Your task to perform on an android device: Open the web browser Image 0: 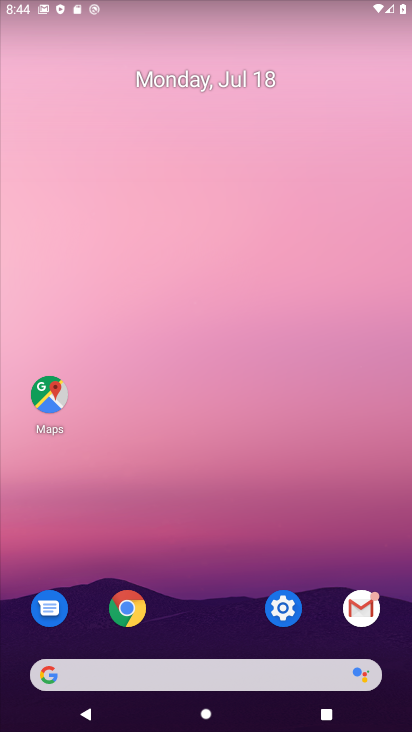
Step 0: click (115, 616)
Your task to perform on an android device: Open the web browser Image 1: 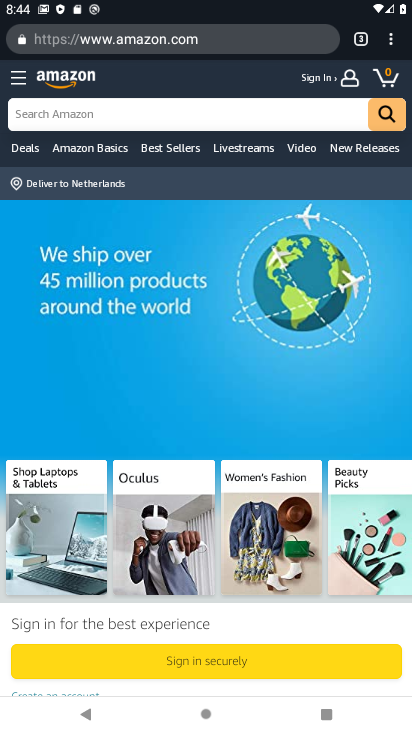
Step 1: click (207, 36)
Your task to perform on an android device: Open the web browser Image 2: 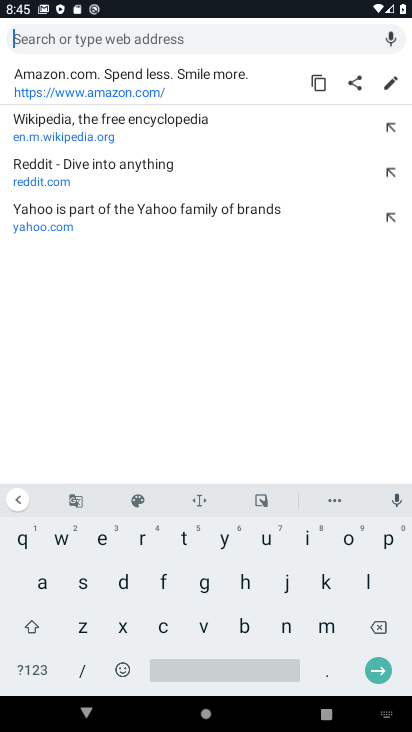
Step 2: task complete